Your task to perform on an android device: Search for Mexican restaurants on Maps Image 0: 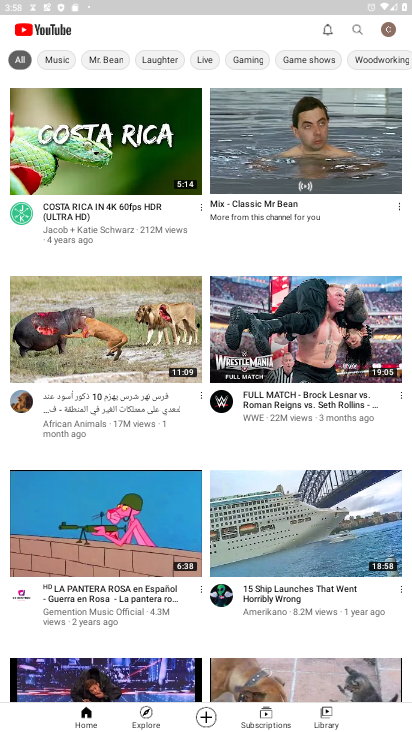
Step 0: press home button
Your task to perform on an android device: Search for Mexican restaurants on Maps Image 1: 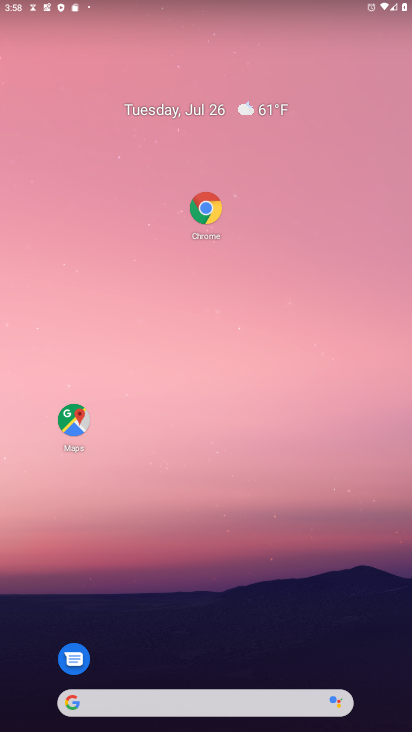
Step 1: click (69, 426)
Your task to perform on an android device: Search for Mexican restaurants on Maps Image 2: 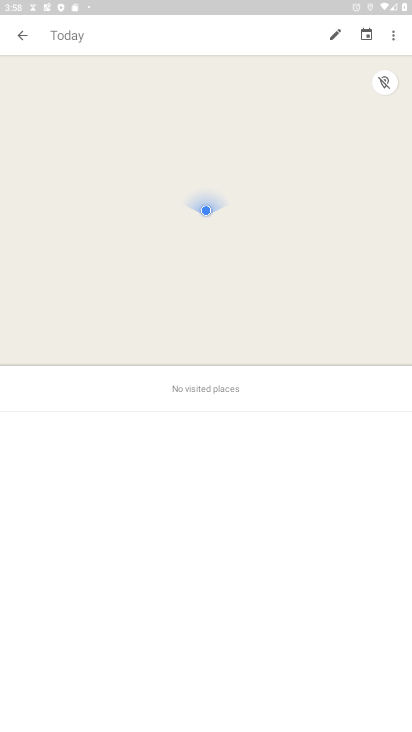
Step 2: click (19, 34)
Your task to perform on an android device: Search for Mexican restaurants on Maps Image 3: 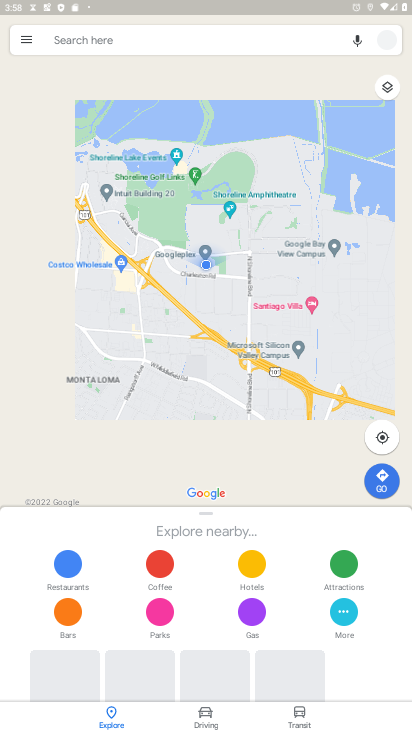
Step 3: click (110, 35)
Your task to perform on an android device: Search for Mexican restaurants on Maps Image 4: 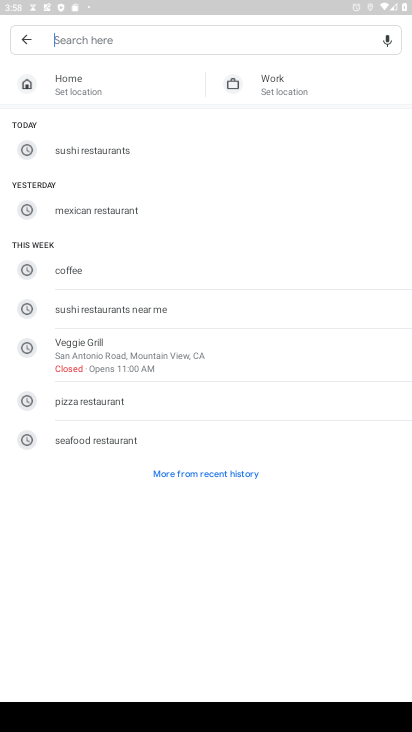
Step 4: click (108, 205)
Your task to perform on an android device: Search for Mexican restaurants on Maps Image 5: 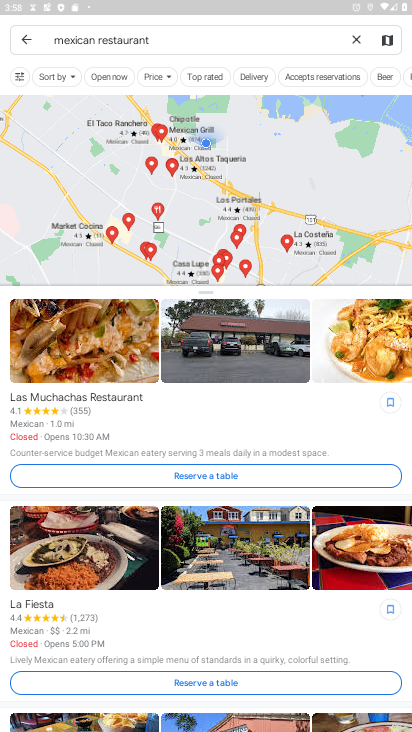
Step 5: task complete